Your task to perform on an android device: check google app version Image 0: 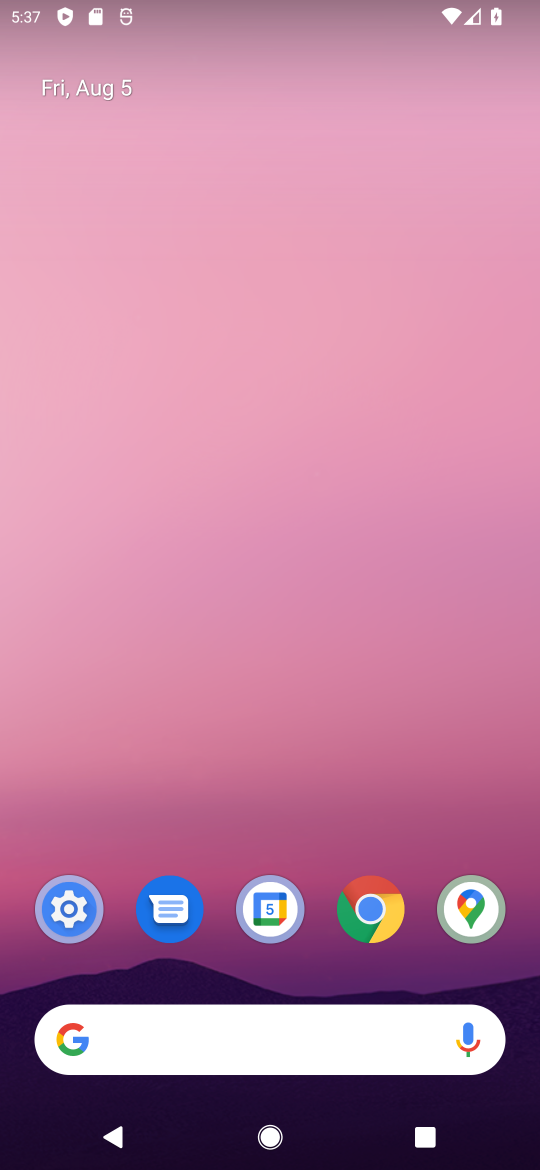
Step 0: press home button
Your task to perform on an android device: check google app version Image 1: 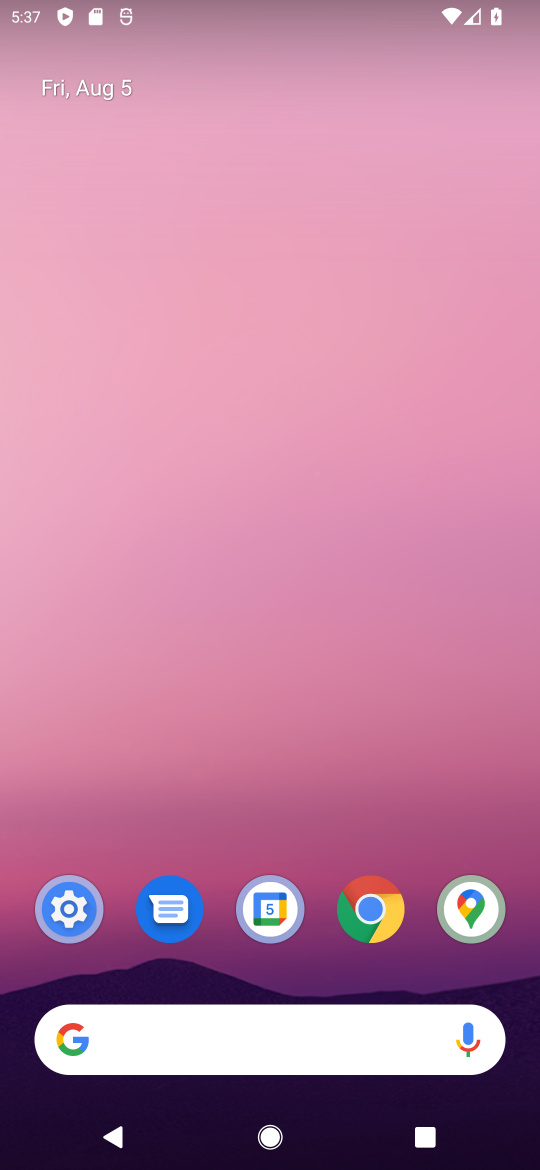
Step 1: drag from (274, 811) to (152, 54)
Your task to perform on an android device: check google app version Image 2: 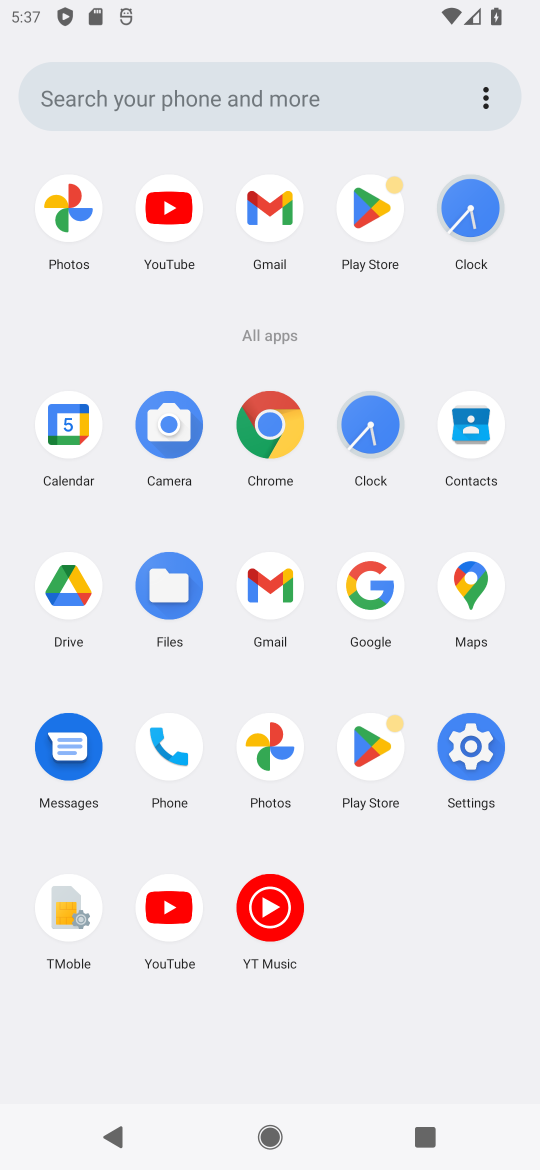
Step 2: click (374, 586)
Your task to perform on an android device: check google app version Image 3: 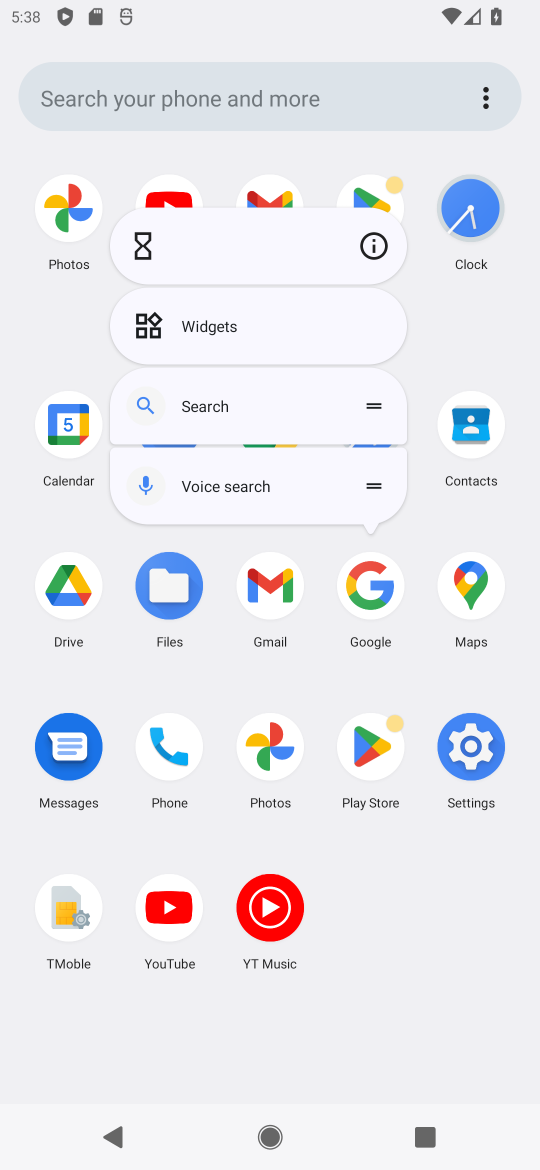
Step 3: click (377, 249)
Your task to perform on an android device: check google app version Image 4: 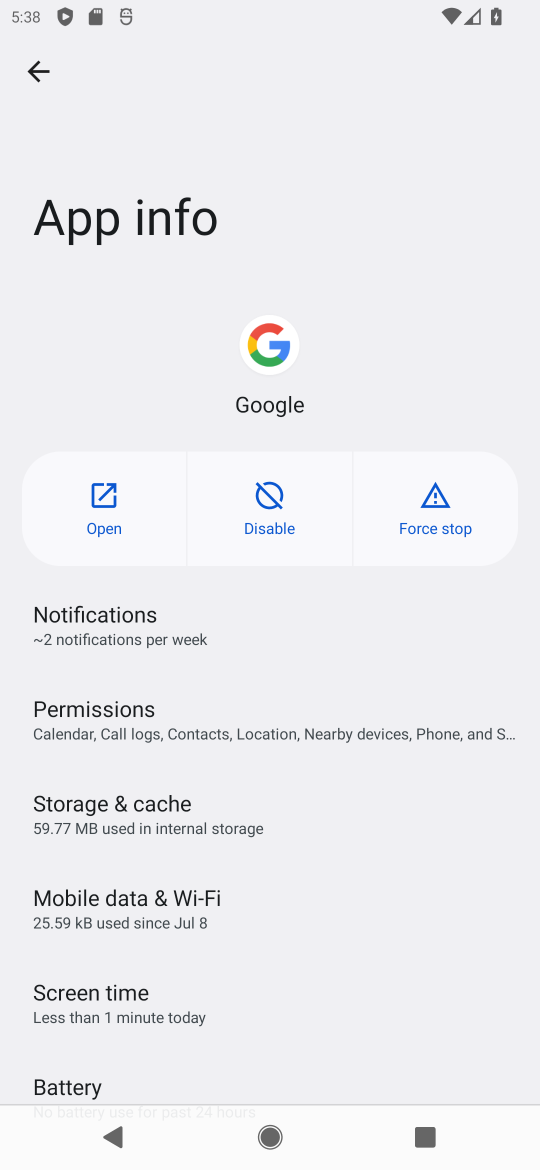
Step 4: task complete